Your task to perform on an android device: Add "jbl flip 4" to the cart on walmart.com, then select checkout. Image 0: 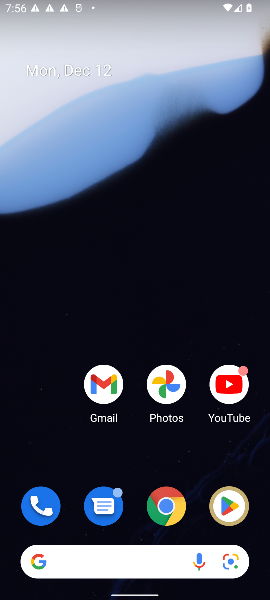
Step 0: click (108, 555)
Your task to perform on an android device: Add "jbl flip 4" to the cart on walmart.com, then select checkout. Image 1: 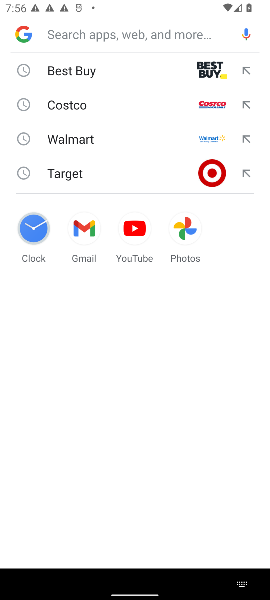
Step 1: click (85, 136)
Your task to perform on an android device: Add "jbl flip 4" to the cart on walmart.com, then select checkout. Image 2: 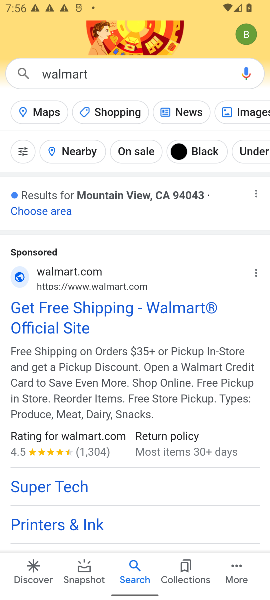
Step 2: click (49, 327)
Your task to perform on an android device: Add "jbl flip 4" to the cart on walmart.com, then select checkout. Image 3: 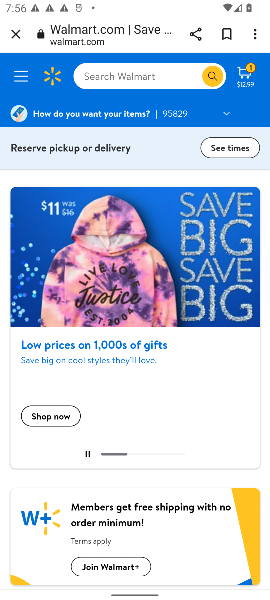
Step 3: click (93, 79)
Your task to perform on an android device: Add "jbl flip 4" to the cart on walmart.com, then select checkout. Image 4: 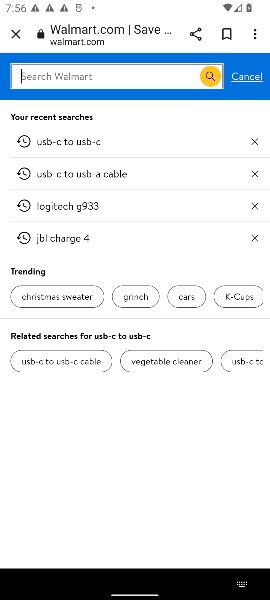
Step 4: type "jbl flip 4"
Your task to perform on an android device: Add "jbl flip 4" to the cart on walmart.com, then select checkout. Image 5: 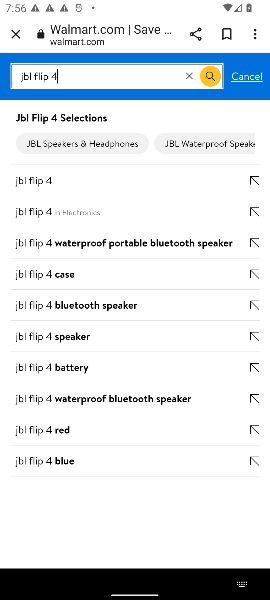
Step 5: click (42, 180)
Your task to perform on an android device: Add "jbl flip 4" to the cart on walmart.com, then select checkout. Image 6: 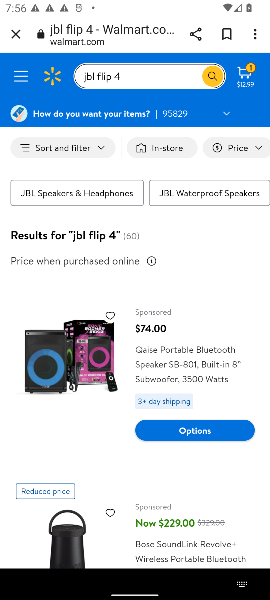
Step 6: click (199, 431)
Your task to perform on an android device: Add "jbl flip 4" to the cart on walmart.com, then select checkout. Image 7: 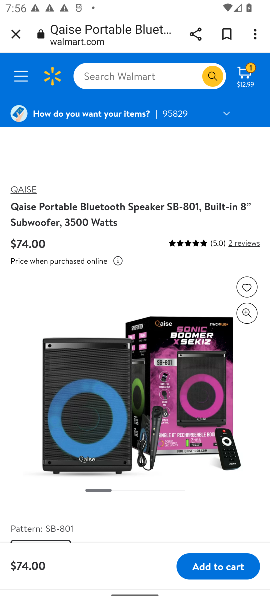
Step 7: click (207, 566)
Your task to perform on an android device: Add "jbl flip 4" to the cart on walmart.com, then select checkout. Image 8: 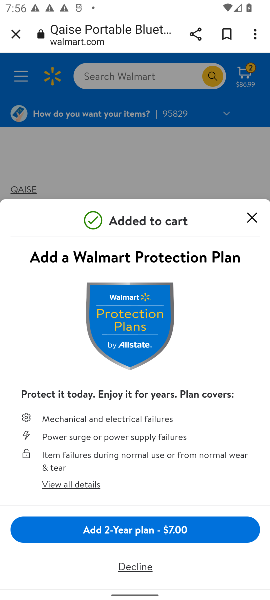
Step 8: task complete